Your task to perform on an android device: set the timer Image 0: 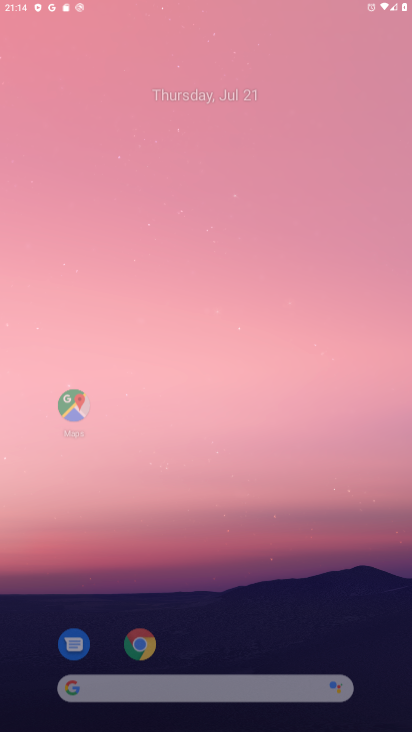
Step 0: press home button
Your task to perform on an android device: set the timer Image 1: 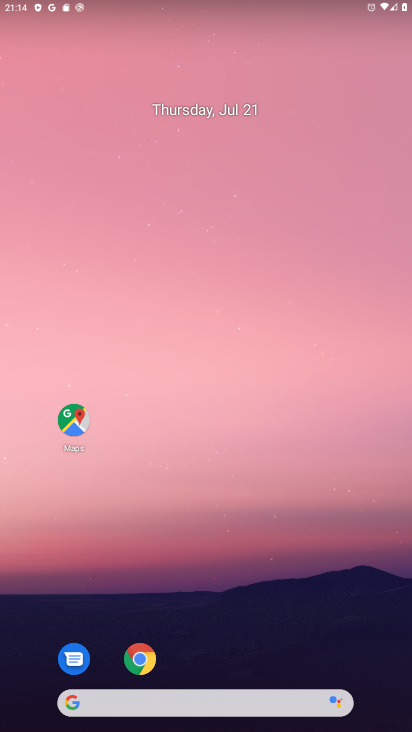
Step 1: drag from (284, 642) to (308, 209)
Your task to perform on an android device: set the timer Image 2: 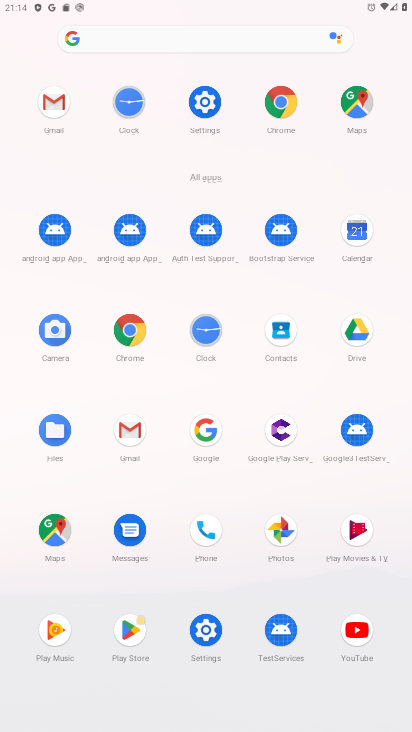
Step 2: click (212, 335)
Your task to perform on an android device: set the timer Image 3: 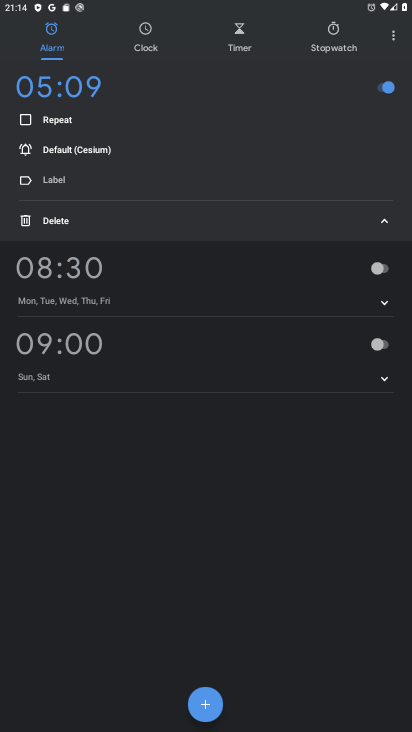
Step 3: click (238, 32)
Your task to perform on an android device: set the timer Image 4: 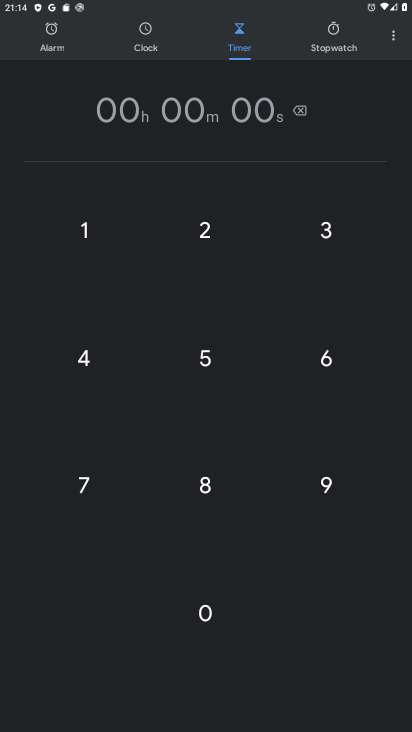
Step 4: click (200, 479)
Your task to perform on an android device: set the timer Image 5: 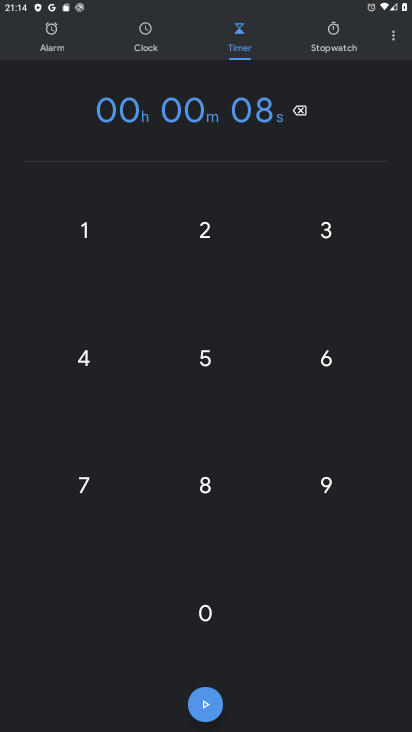
Step 5: click (208, 693)
Your task to perform on an android device: set the timer Image 6: 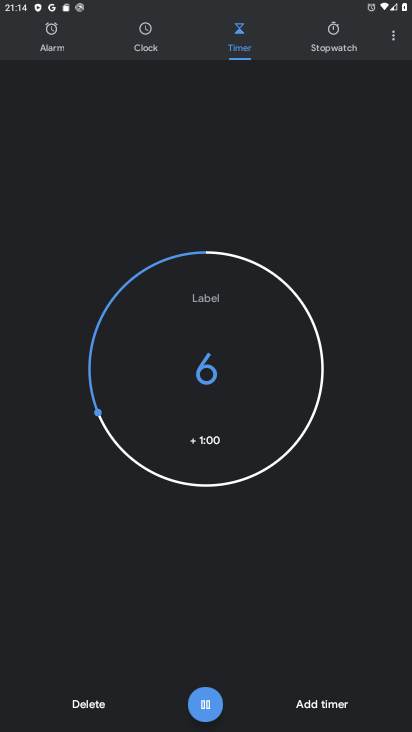
Step 6: task complete